Your task to perform on an android device: install app "Chime – Mobile Banking" Image 0: 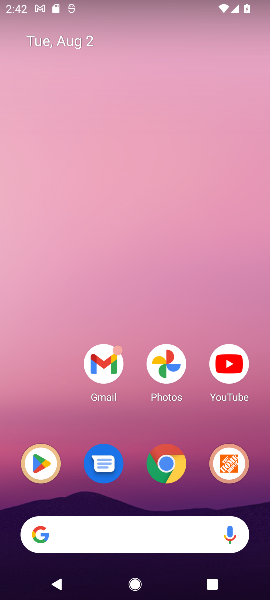
Step 0: press home button
Your task to perform on an android device: install app "Chime – Mobile Banking" Image 1: 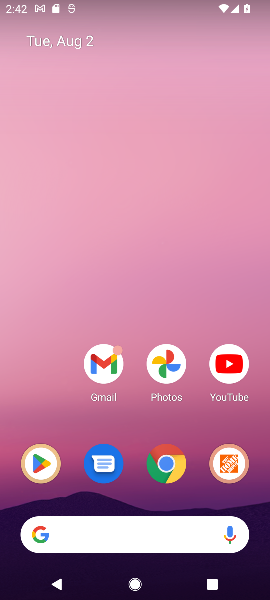
Step 1: click (39, 460)
Your task to perform on an android device: install app "Chime – Mobile Banking" Image 2: 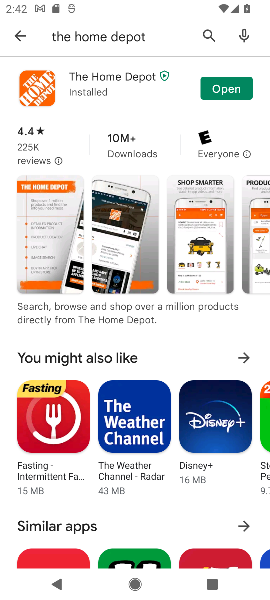
Step 2: click (205, 31)
Your task to perform on an android device: install app "Chime – Mobile Banking" Image 3: 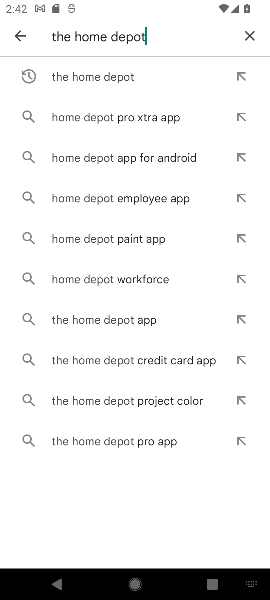
Step 3: click (249, 28)
Your task to perform on an android device: install app "Chime – Mobile Banking" Image 4: 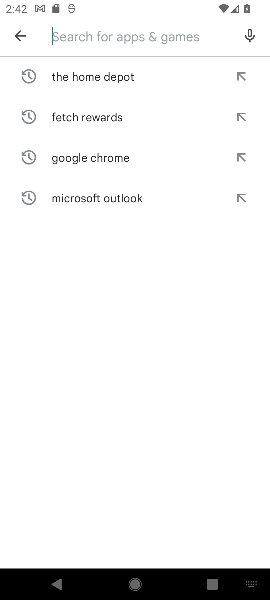
Step 4: type "Chime  Mobile Banking"
Your task to perform on an android device: install app "Chime – Mobile Banking" Image 5: 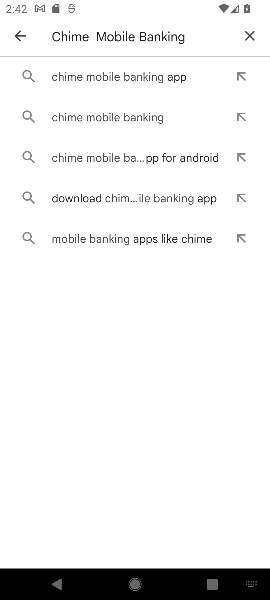
Step 5: click (72, 78)
Your task to perform on an android device: install app "Chime – Mobile Banking" Image 6: 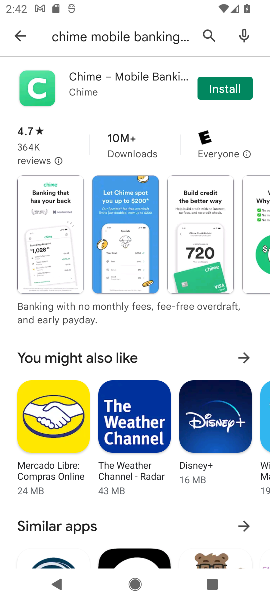
Step 6: click (226, 86)
Your task to perform on an android device: install app "Chime – Mobile Banking" Image 7: 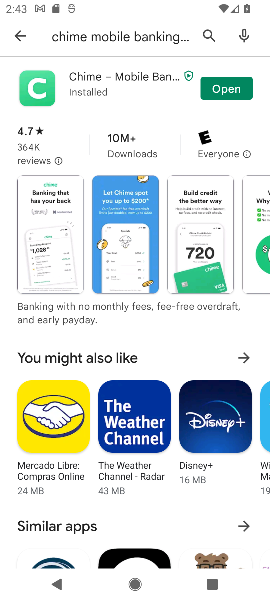
Step 7: task complete